Your task to perform on an android device: Search for sushi restaurants on Maps Image 0: 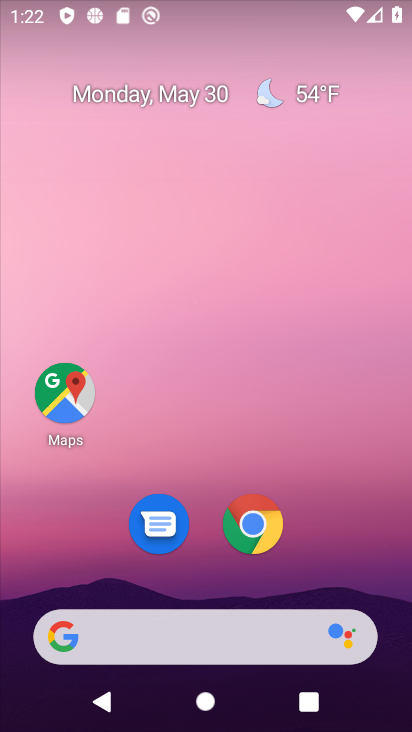
Step 0: click (75, 382)
Your task to perform on an android device: Search for sushi restaurants on Maps Image 1: 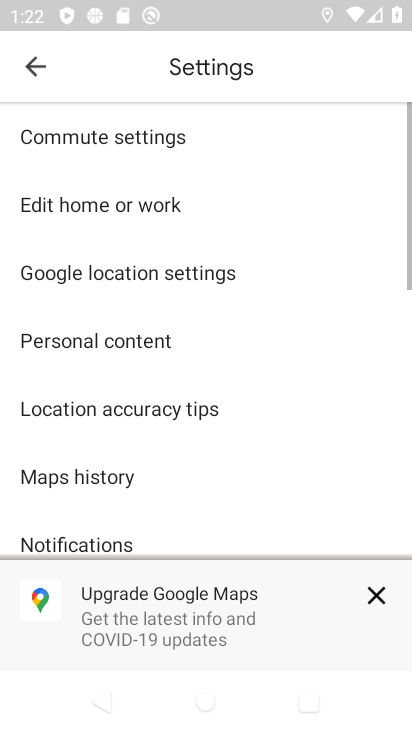
Step 1: click (29, 63)
Your task to perform on an android device: Search for sushi restaurants on Maps Image 2: 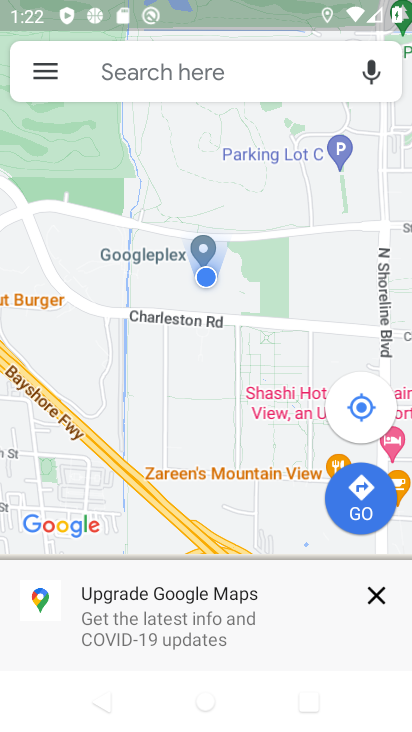
Step 2: click (148, 76)
Your task to perform on an android device: Search for sushi restaurants on Maps Image 3: 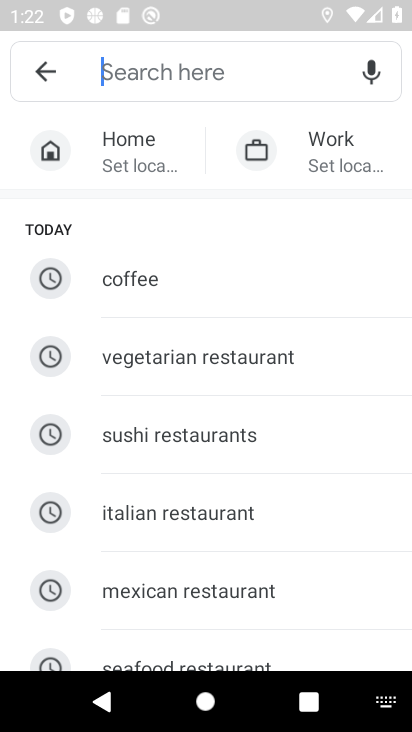
Step 3: click (158, 425)
Your task to perform on an android device: Search for sushi restaurants on Maps Image 4: 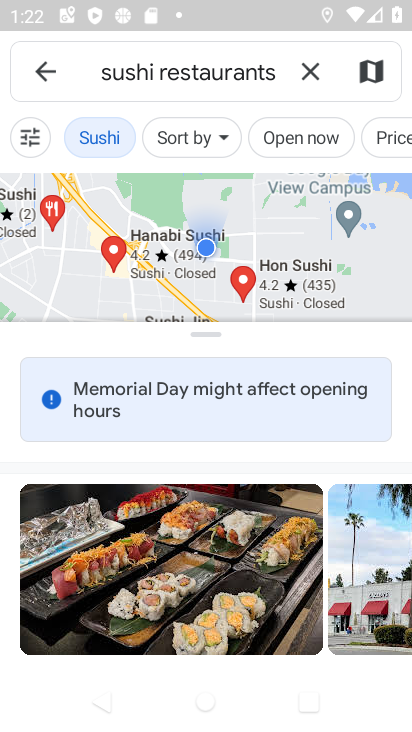
Step 4: task complete